Your task to perform on an android device: Go to network settings Image 0: 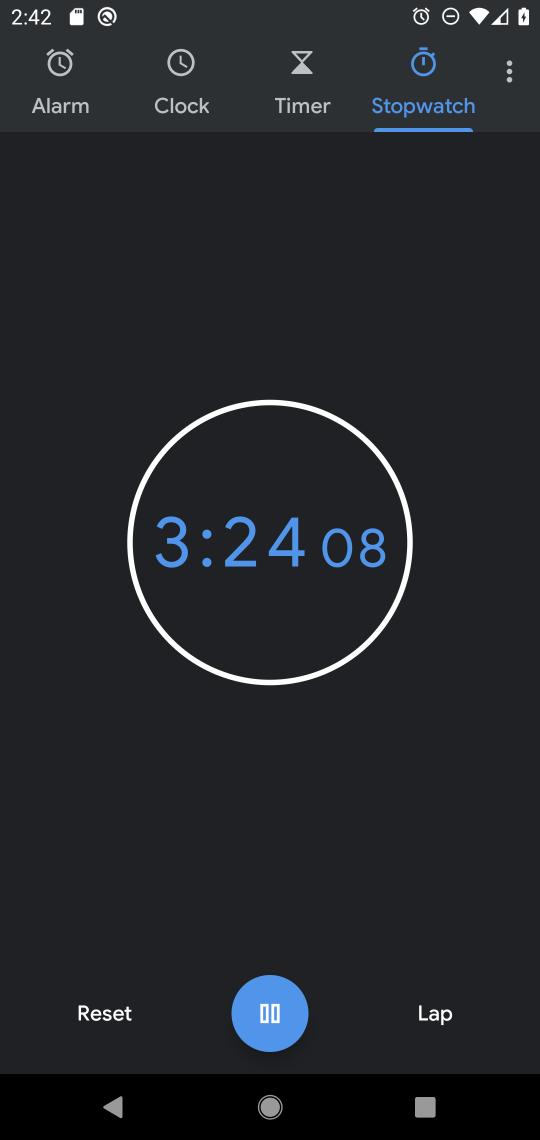
Step 0: press home button
Your task to perform on an android device: Go to network settings Image 1: 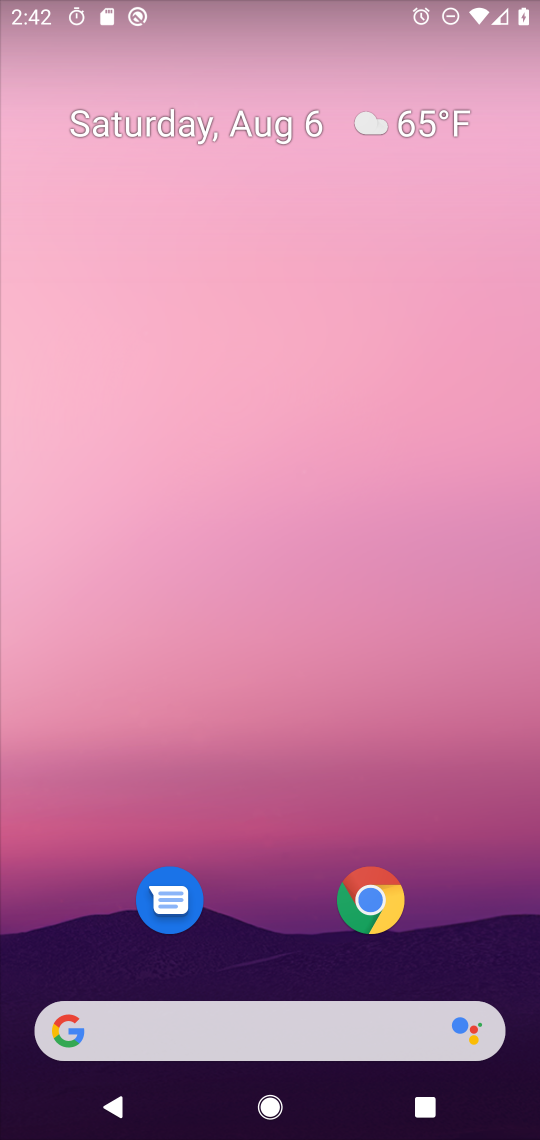
Step 1: drag from (273, 975) to (273, 148)
Your task to perform on an android device: Go to network settings Image 2: 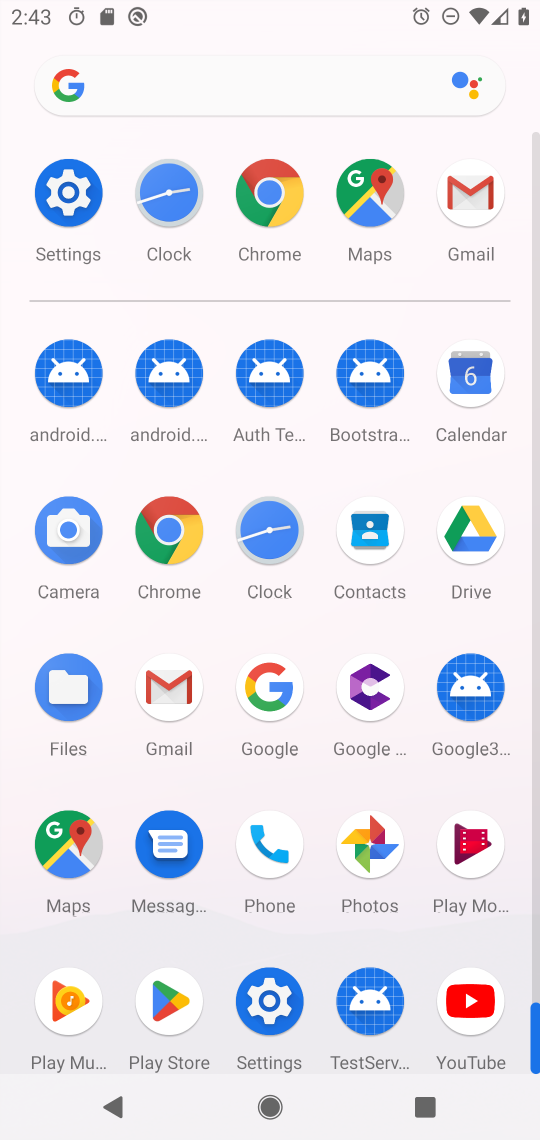
Step 2: click (63, 188)
Your task to perform on an android device: Go to network settings Image 3: 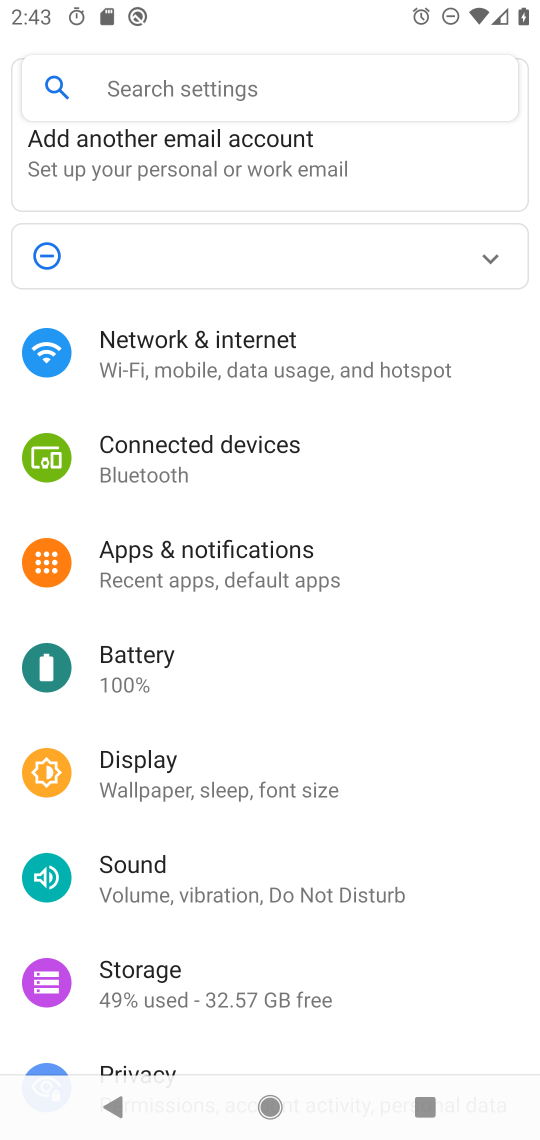
Step 3: click (212, 357)
Your task to perform on an android device: Go to network settings Image 4: 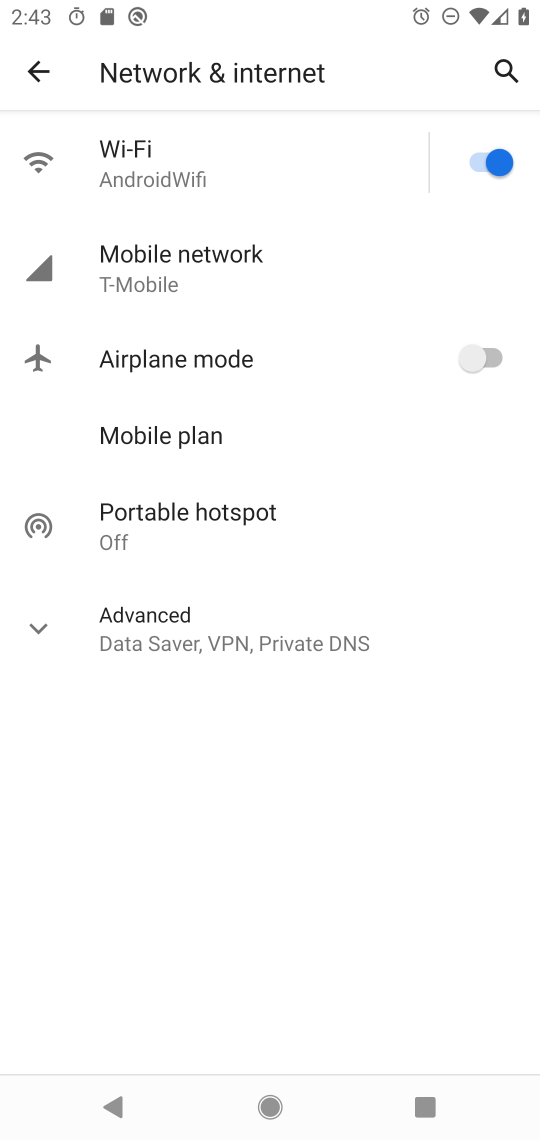
Step 4: click (152, 261)
Your task to perform on an android device: Go to network settings Image 5: 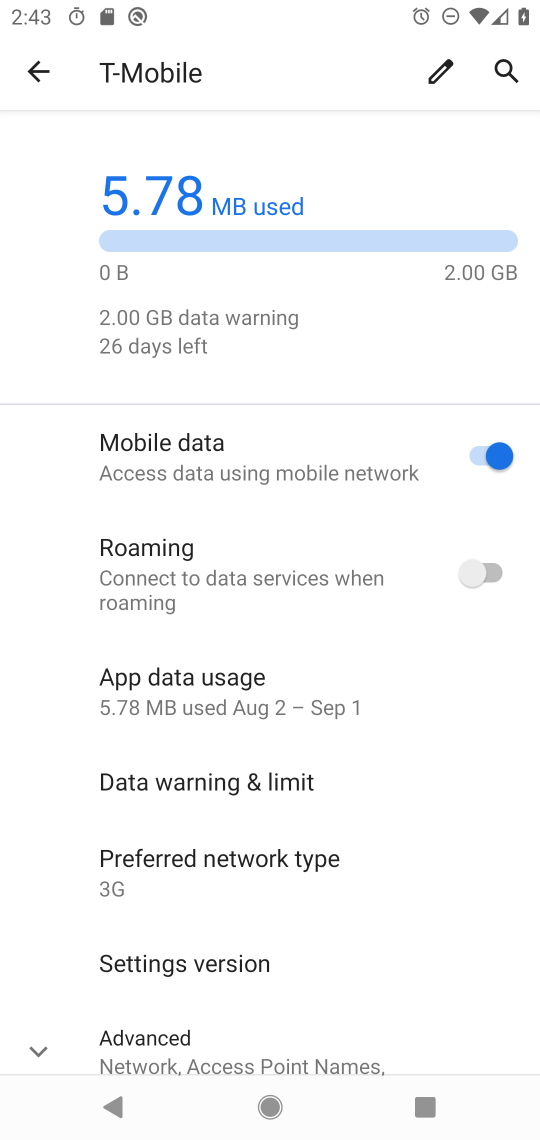
Step 5: task complete